Your task to perform on an android device: Go to battery settings Image 0: 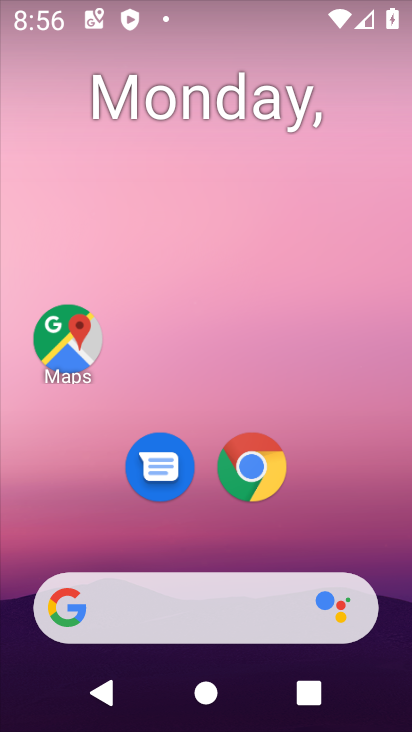
Step 0: drag from (207, 505) to (248, 106)
Your task to perform on an android device: Go to battery settings Image 1: 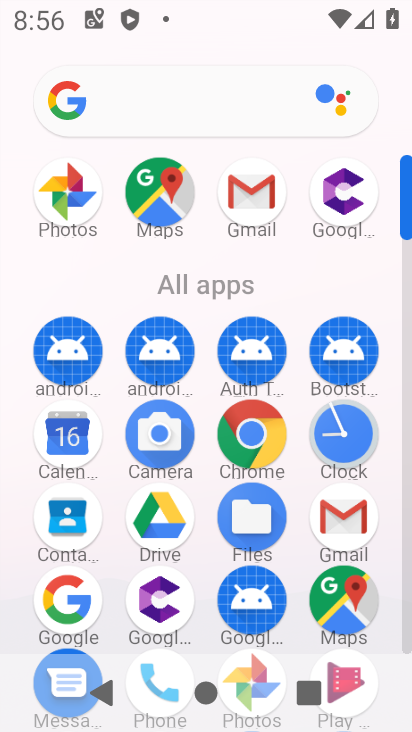
Step 1: drag from (203, 620) to (254, 212)
Your task to perform on an android device: Go to battery settings Image 2: 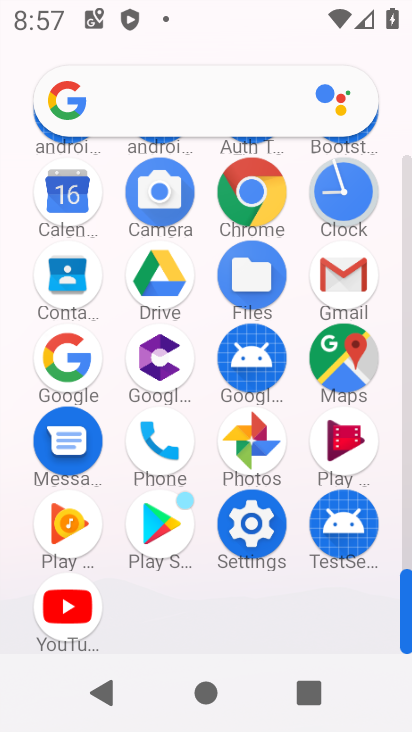
Step 2: click (250, 532)
Your task to perform on an android device: Go to battery settings Image 3: 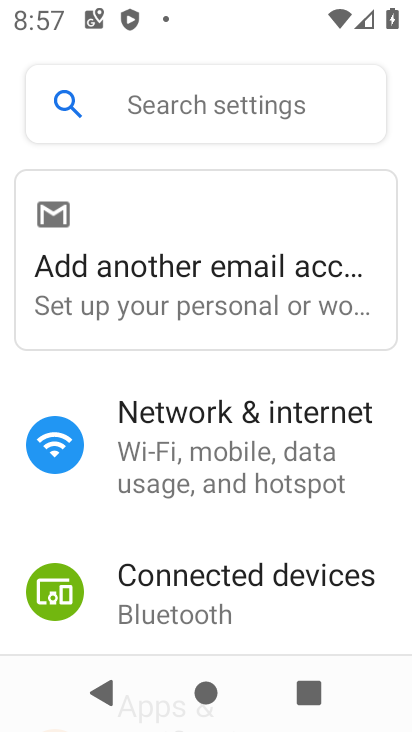
Step 3: drag from (241, 595) to (271, 260)
Your task to perform on an android device: Go to battery settings Image 4: 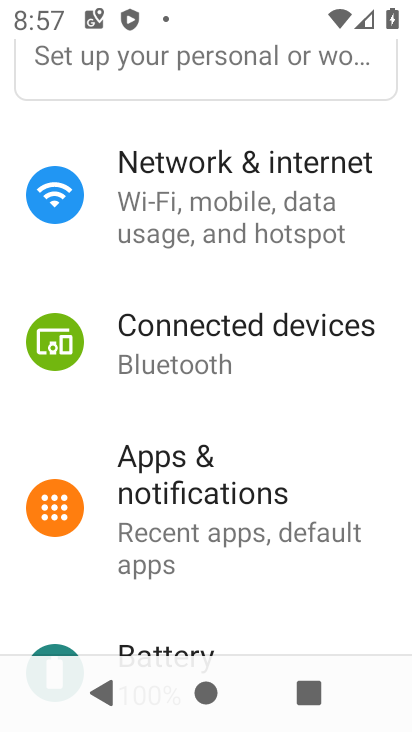
Step 4: drag from (201, 546) to (259, 222)
Your task to perform on an android device: Go to battery settings Image 5: 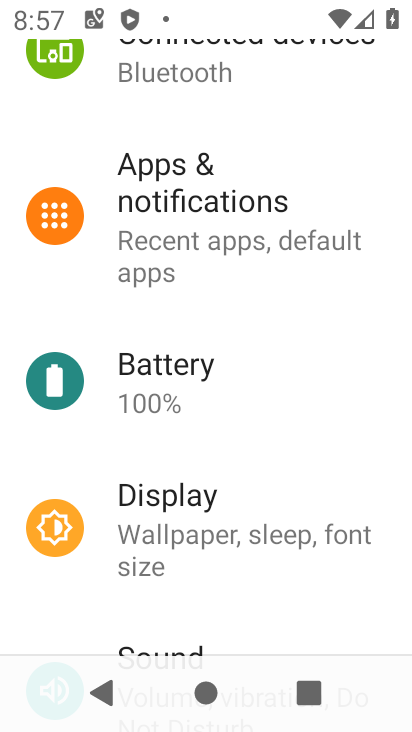
Step 5: click (221, 384)
Your task to perform on an android device: Go to battery settings Image 6: 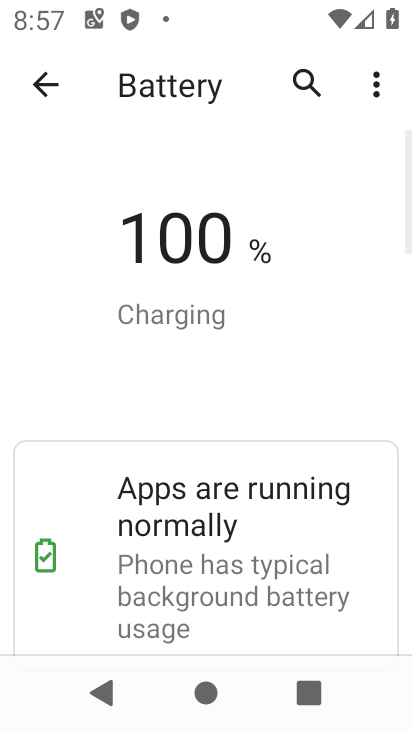
Step 6: task complete